Your task to perform on an android device: When is my next meeting? Image 0: 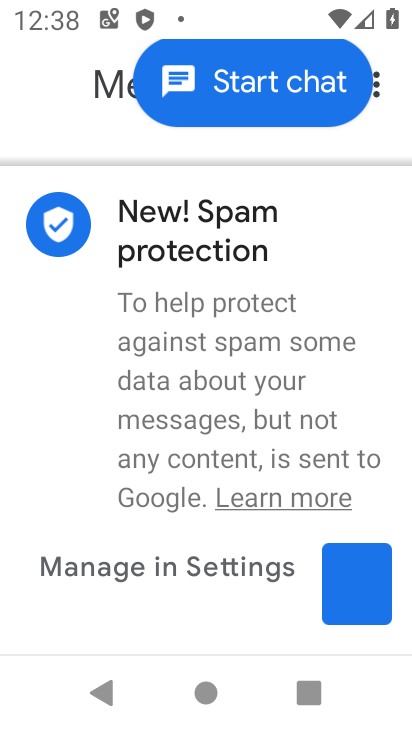
Step 0: press home button
Your task to perform on an android device: When is my next meeting? Image 1: 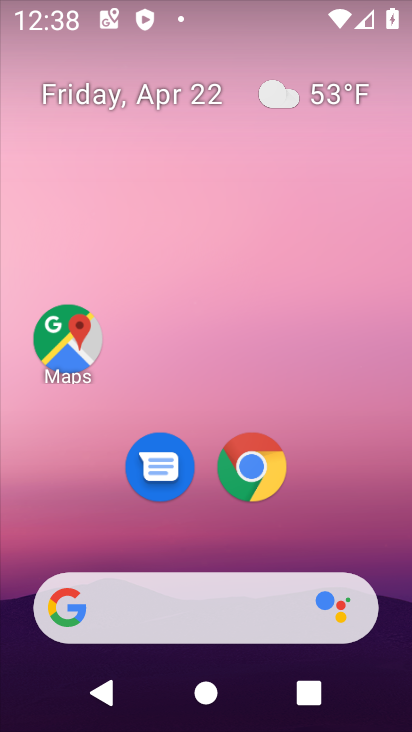
Step 1: drag from (400, 581) to (322, 147)
Your task to perform on an android device: When is my next meeting? Image 2: 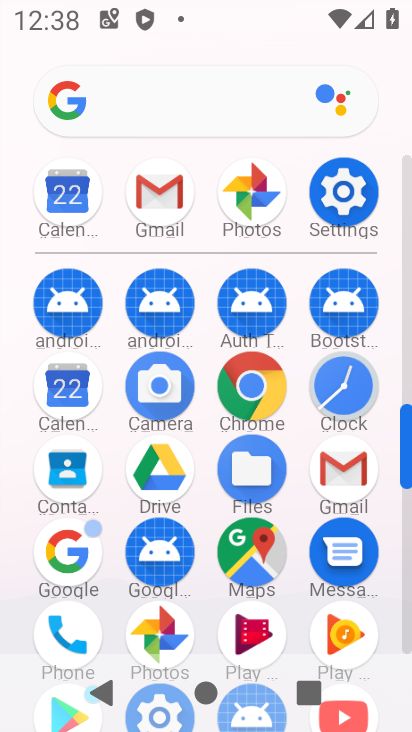
Step 2: click (408, 637)
Your task to perform on an android device: When is my next meeting? Image 3: 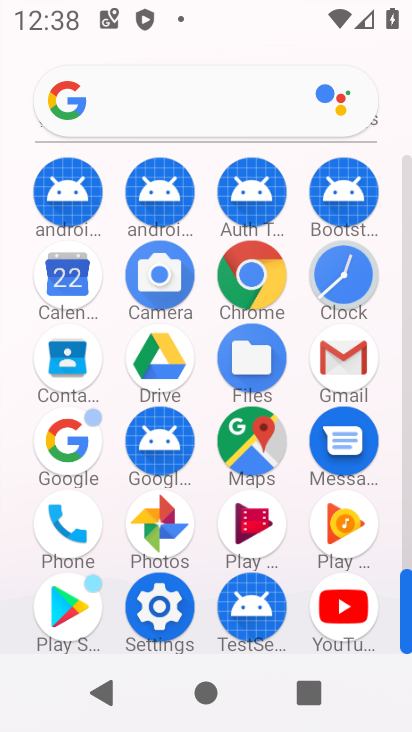
Step 3: click (62, 279)
Your task to perform on an android device: When is my next meeting? Image 4: 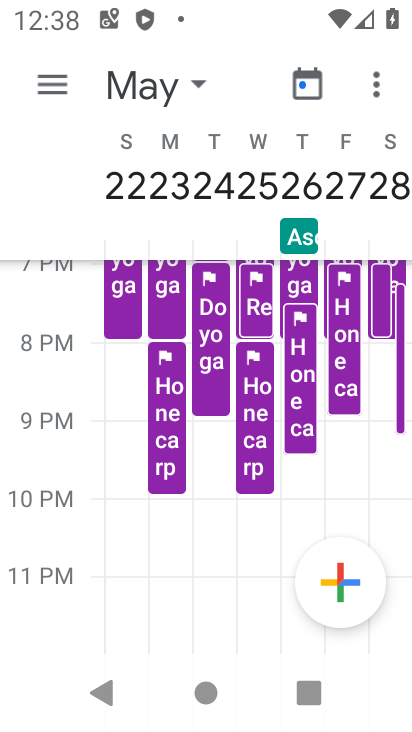
Step 4: click (65, 74)
Your task to perform on an android device: When is my next meeting? Image 5: 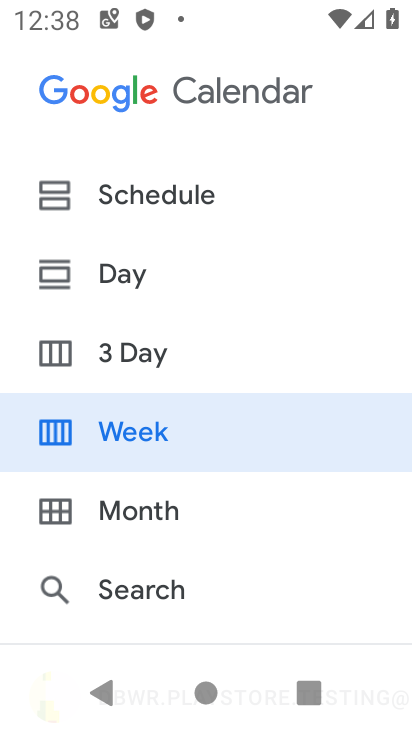
Step 5: click (157, 196)
Your task to perform on an android device: When is my next meeting? Image 6: 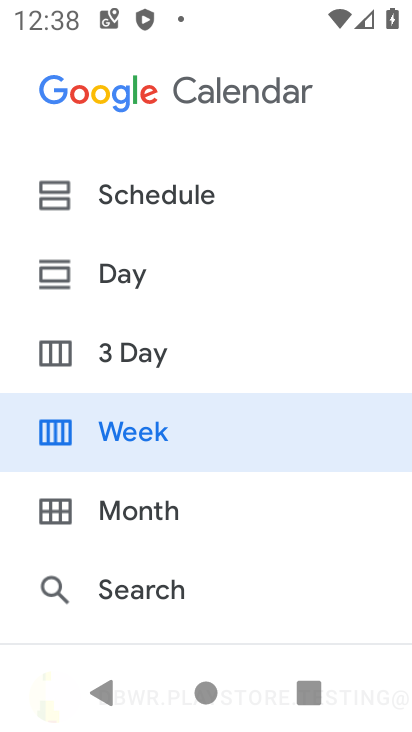
Step 6: click (122, 201)
Your task to perform on an android device: When is my next meeting? Image 7: 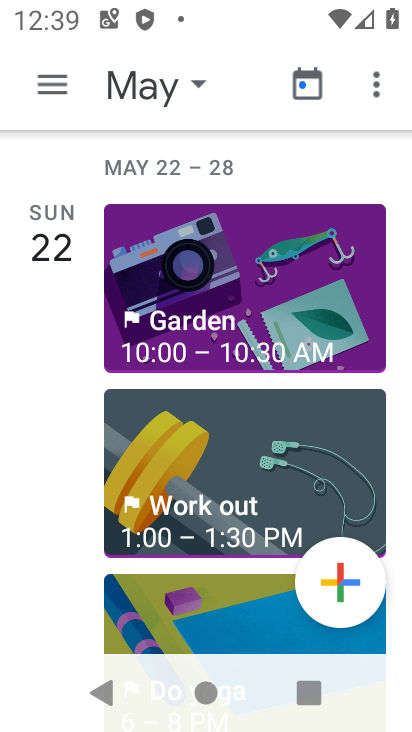
Step 7: task complete